Your task to perform on an android device: What's the weather going to be this weekend? Image 0: 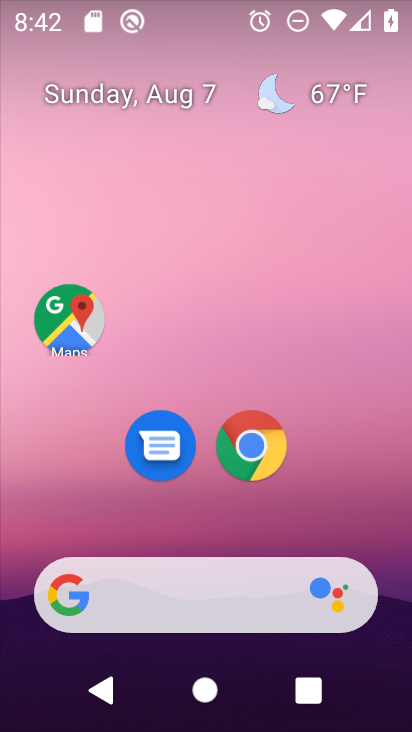
Step 0: press home button
Your task to perform on an android device: What's the weather going to be this weekend? Image 1: 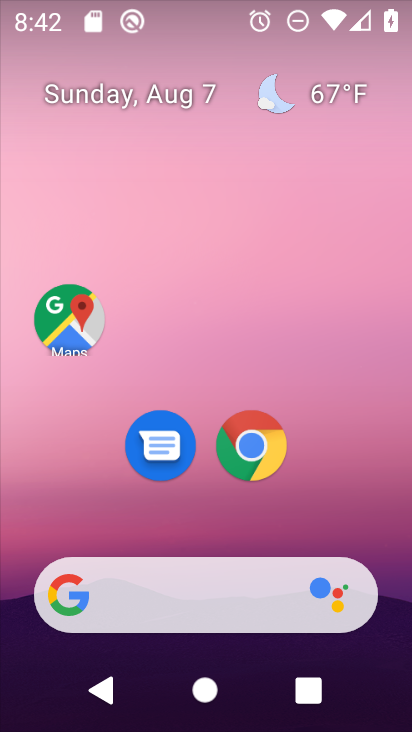
Step 1: press home button
Your task to perform on an android device: What's the weather going to be this weekend? Image 2: 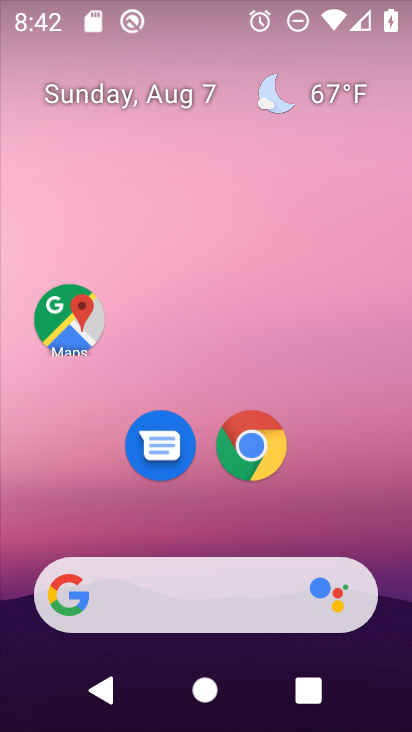
Step 2: click (328, 94)
Your task to perform on an android device: What's the weather going to be this weekend? Image 3: 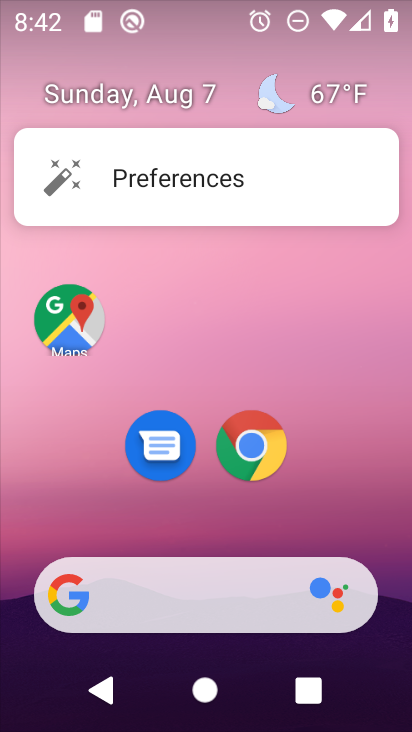
Step 3: click (277, 94)
Your task to perform on an android device: What's the weather going to be this weekend? Image 4: 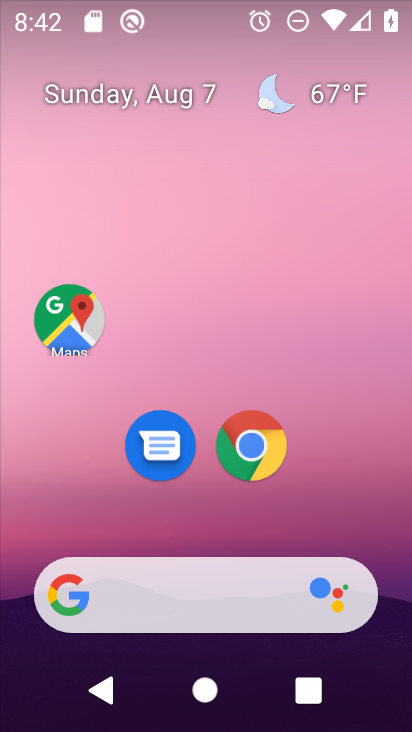
Step 4: click (327, 89)
Your task to perform on an android device: What's the weather going to be this weekend? Image 5: 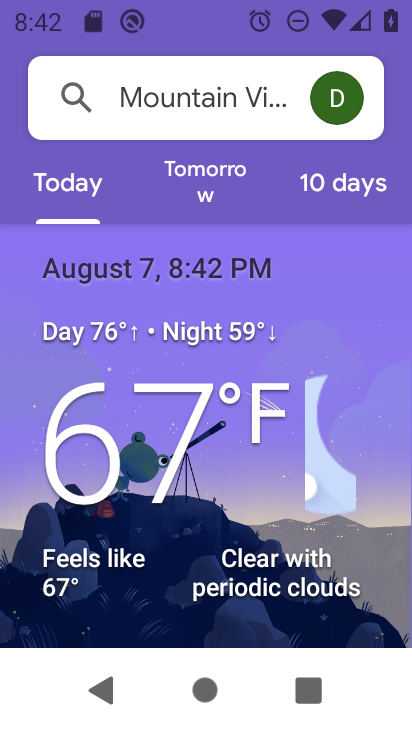
Step 5: click (341, 193)
Your task to perform on an android device: What's the weather going to be this weekend? Image 6: 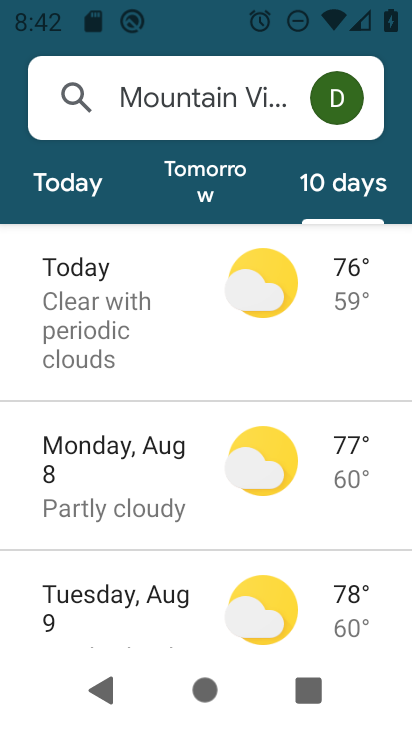
Step 6: drag from (173, 580) to (165, 227)
Your task to perform on an android device: What's the weather going to be this weekend? Image 7: 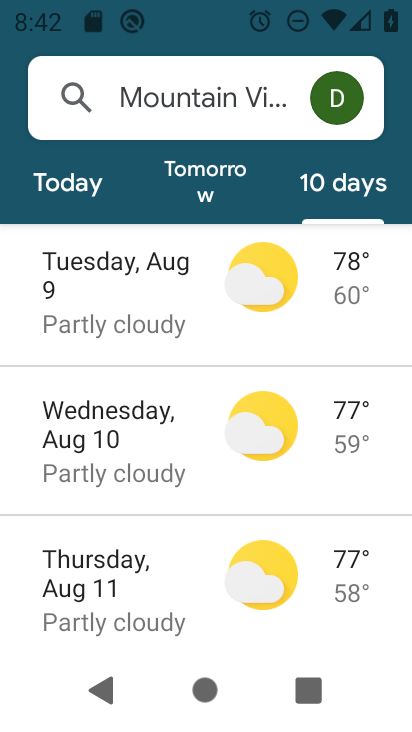
Step 7: drag from (172, 579) to (191, 234)
Your task to perform on an android device: What's the weather going to be this weekend? Image 8: 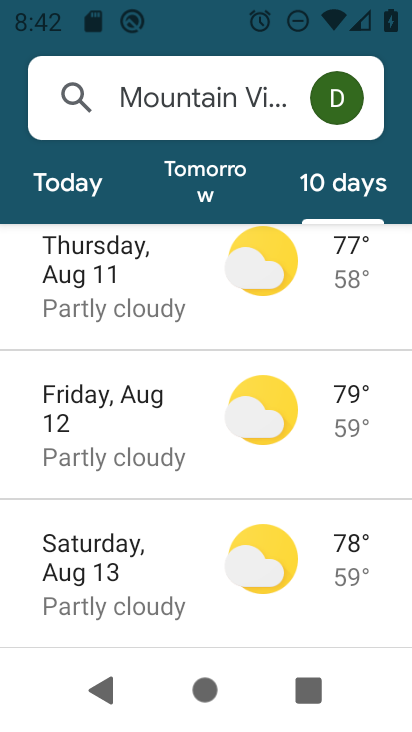
Step 8: drag from (163, 577) to (187, 346)
Your task to perform on an android device: What's the weather going to be this weekend? Image 9: 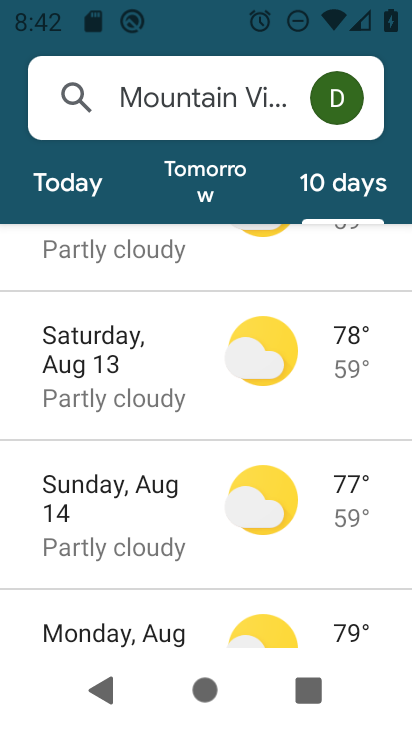
Step 9: click (152, 349)
Your task to perform on an android device: What's the weather going to be this weekend? Image 10: 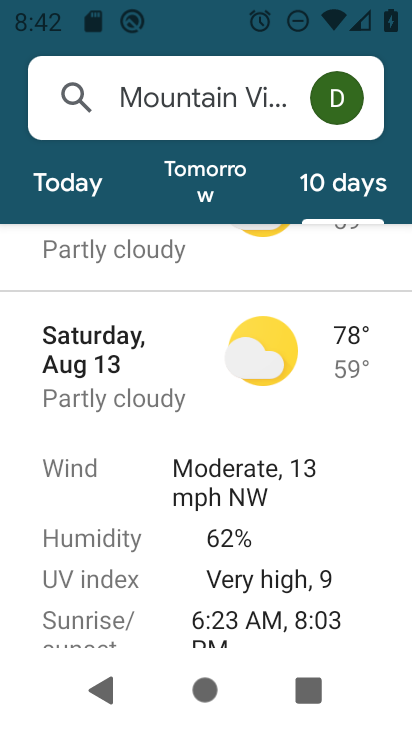
Step 10: drag from (153, 570) to (179, 352)
Your task to perform on an android device: What's the weather going to be this weekend? Image 11: 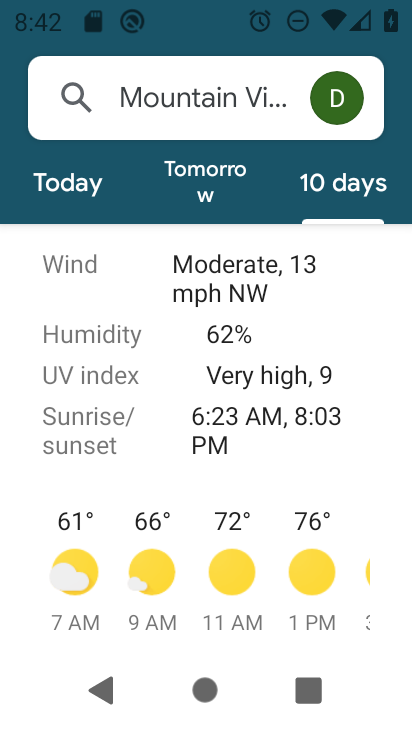
Step 11: drag from (174, 561) to (197, 366)
Your task to perform on an android device: What's the weather going to be this weekend? Image 12: 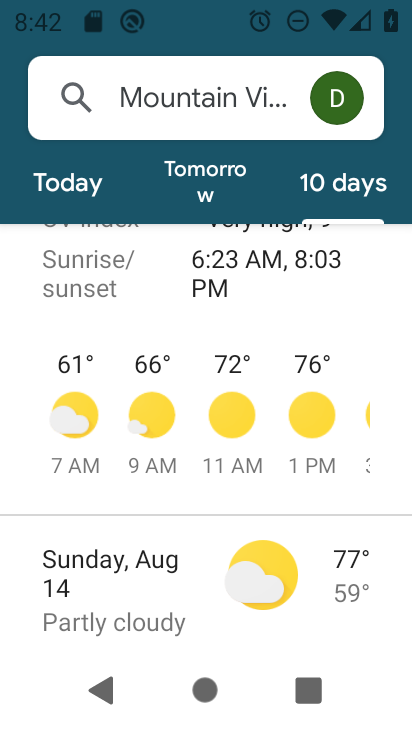
Step 12: drag from (306, 414) to (59, 419)
Your task to perform on an android device: What's the weather going to be this weekend? Image 13: 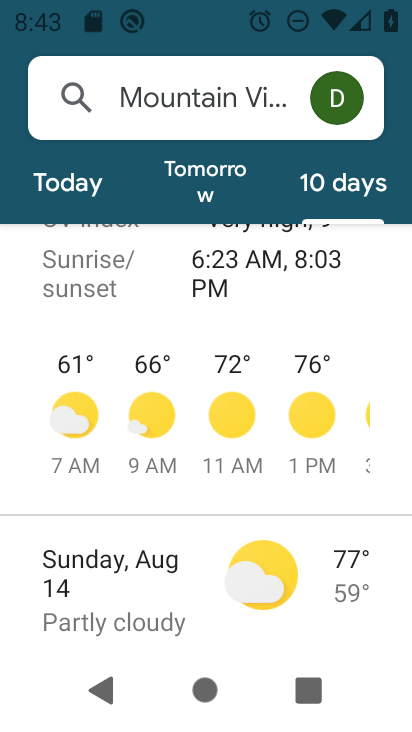
Step 13: click (194, 561)
Your task to perform on an android device: What's the weather going to be this weekend? Image 14: 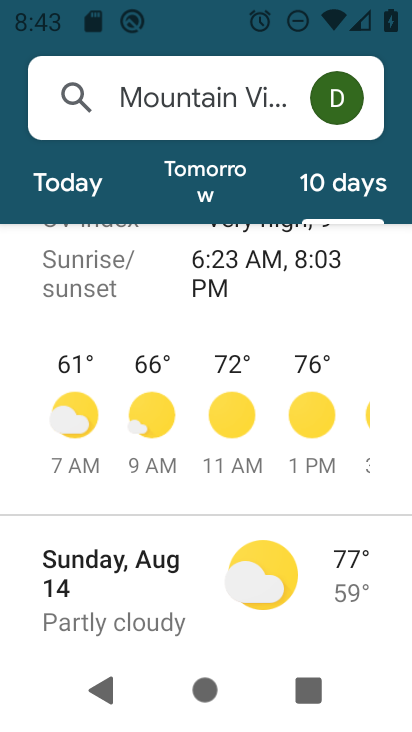
Step 14: task complete